Your task to perform on an android device: change alarm snooze length Image 0: 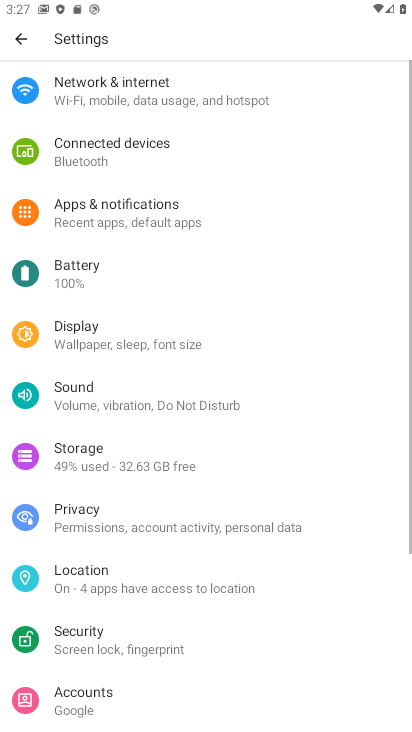
Step 0: press home button
Your task to perform on an android device: change alarm snooze length Image 1: 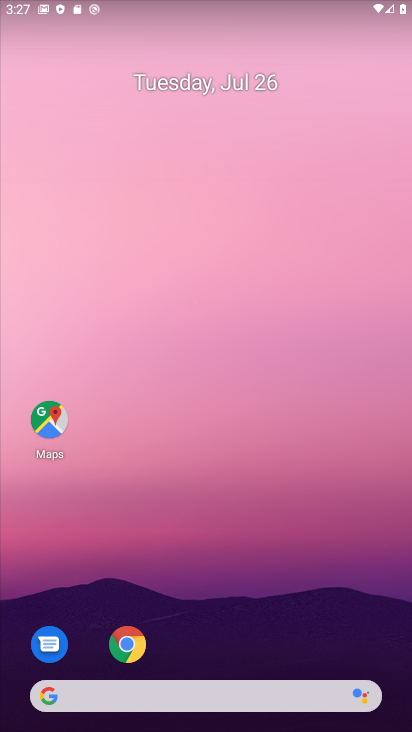
Step 1: drag from (379, 652) to (330, 178)
Your task to perform on an android device: change alarm snooze length Image 2: 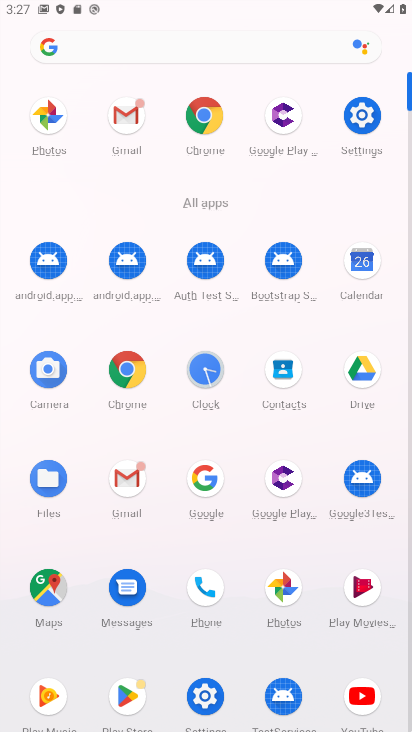
Step 2: click (204, 368)
Your task to perform on an android device: change alarm snooze length Image 3: 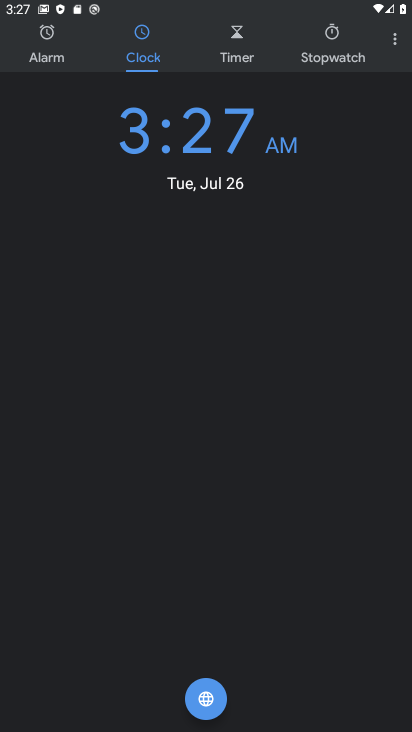
Step 3: click (394, 48)
Your task to perform on an android device: change alarm snooze length Image 4: 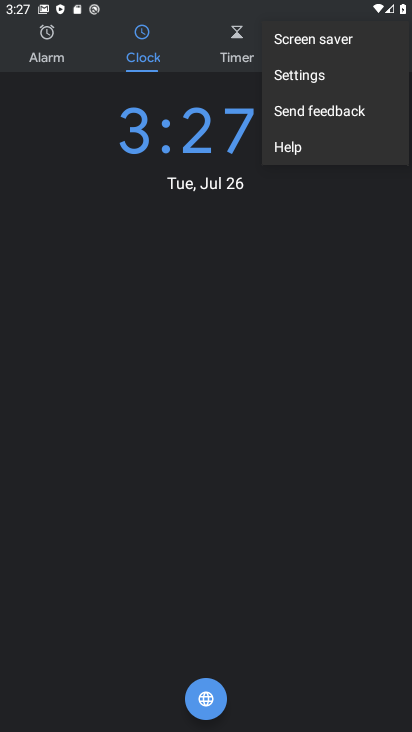
Step 4: click (289, 80)
Your task to perform on an android device: change alarm snooze length Image 5: 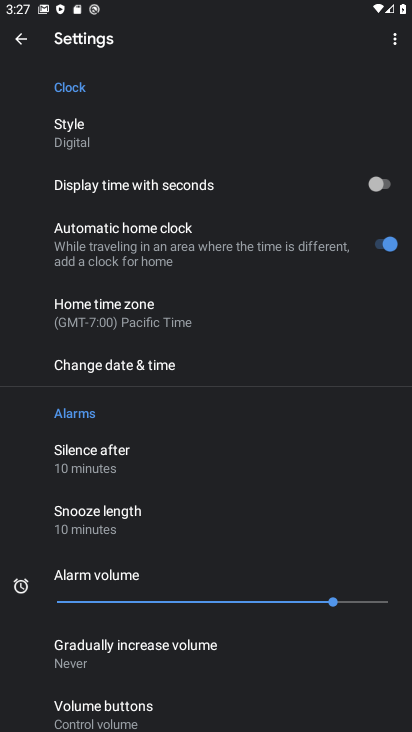
Step 5: click (95, 516)
Your task to perform on an android device: change alarm snooze length Image 6: 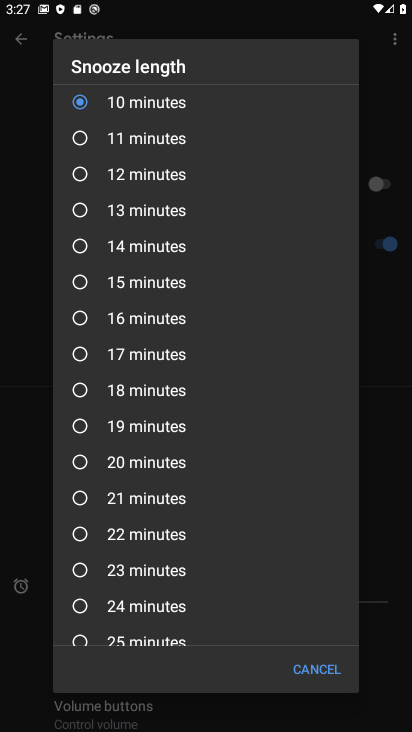
Step 6: click (83, 281)
Your task to perform on an android device: change alarm snooze length Image 7: 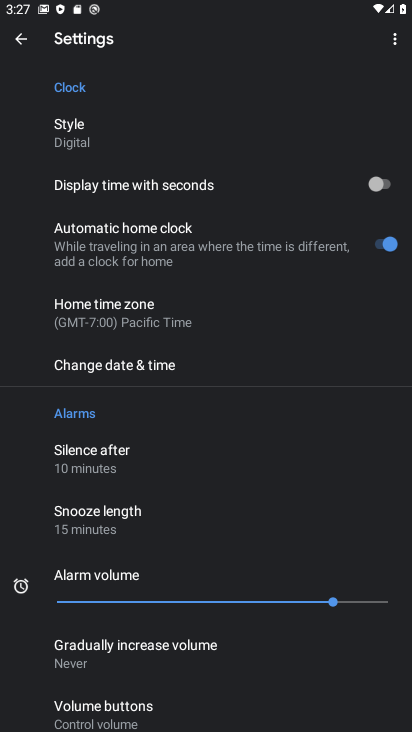
Step 7: task complete